Your task to perform on an android device: Open internet settings Image 0: 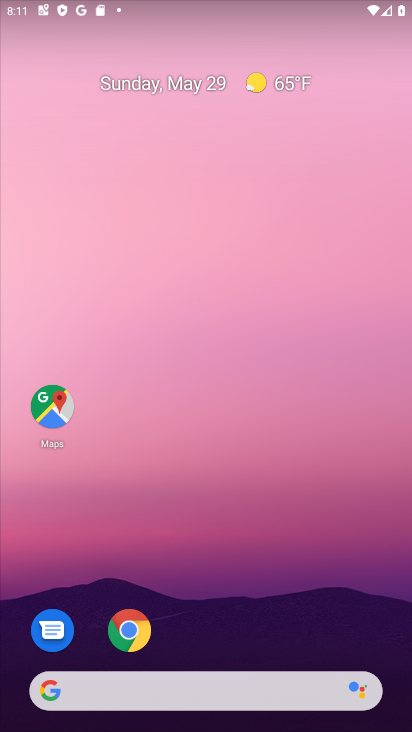
Step 0: drag from (213, 721) to (155, 2)
Your task to perform on an android device: Open internet settings Image 1: 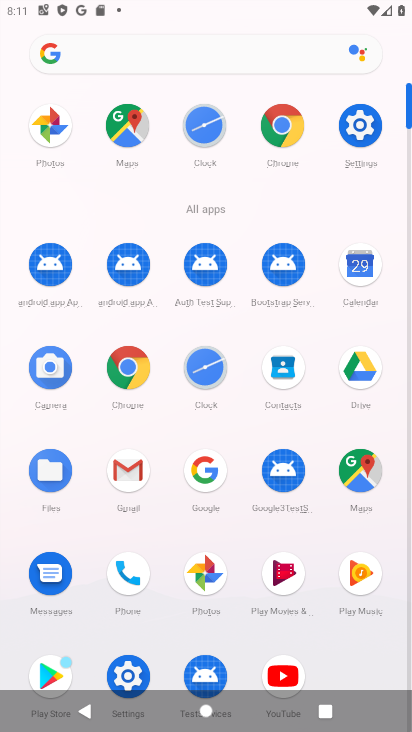
Step 1: click (355, 133)
Your task to perform on an android device: Open internet settings Image 2: 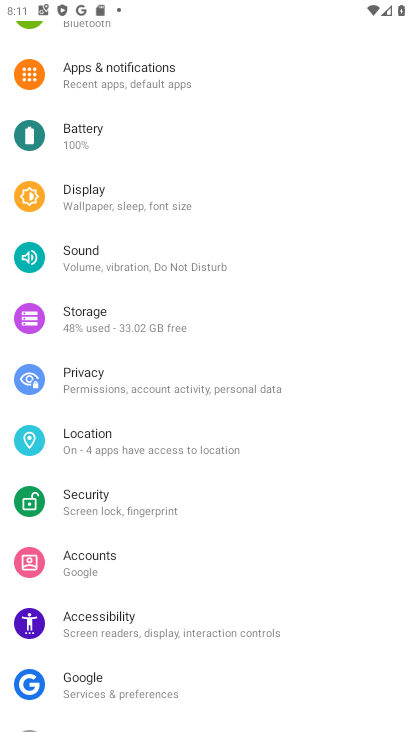
Step 2: drag from (193, 65) to (215, 504)
Your task to perform on an android device: Open internet settings Image 3: 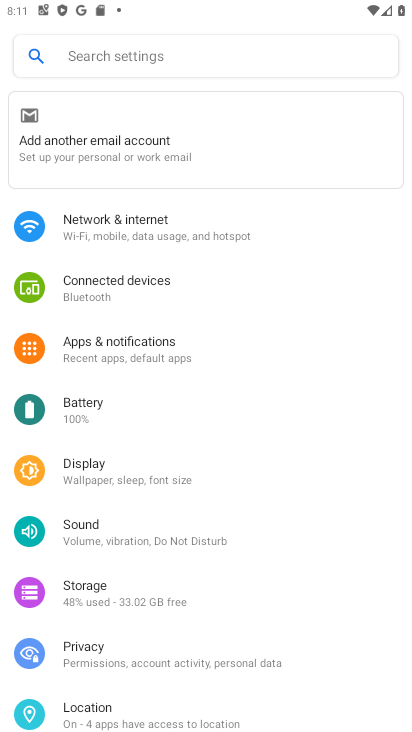
Step 3: click (155, 232)
Your task to perform on an android device: Open internet settings Image 4: 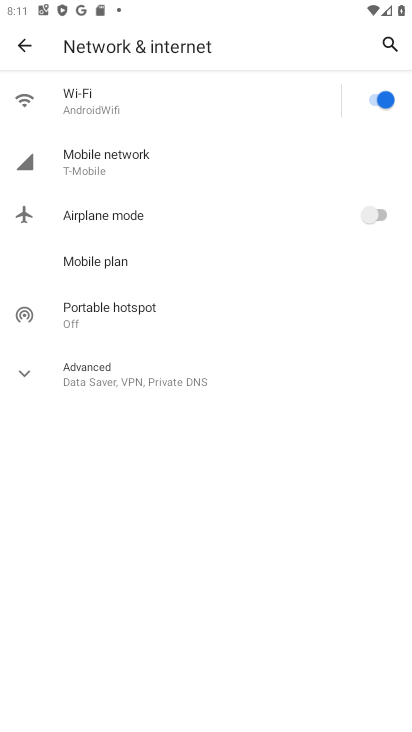
Step 4: task complete